Your task to perform on an android device: Empty the shopping cart on target.com. Image 0: 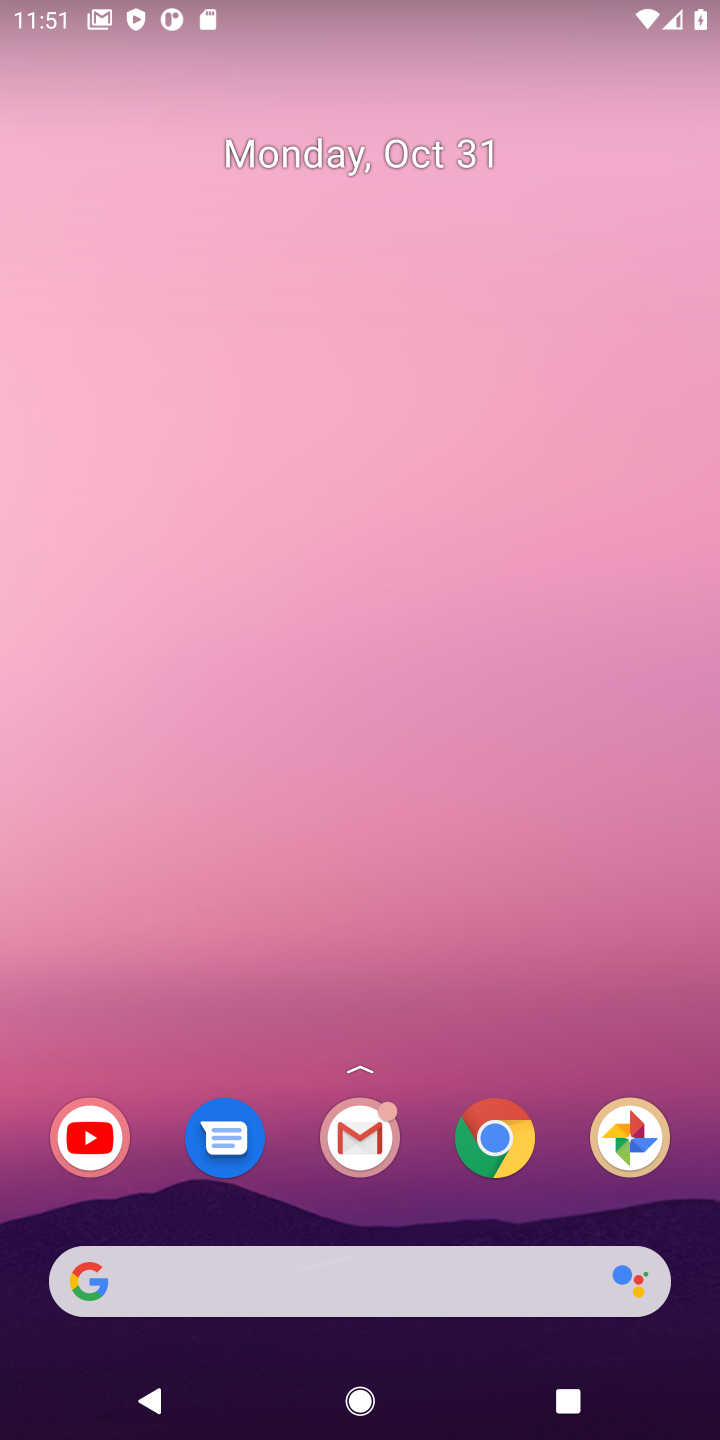
Step 0: click (510, 1150)
Your task to perform on an android device: Empty the shopping cart on target.com. Image 1: 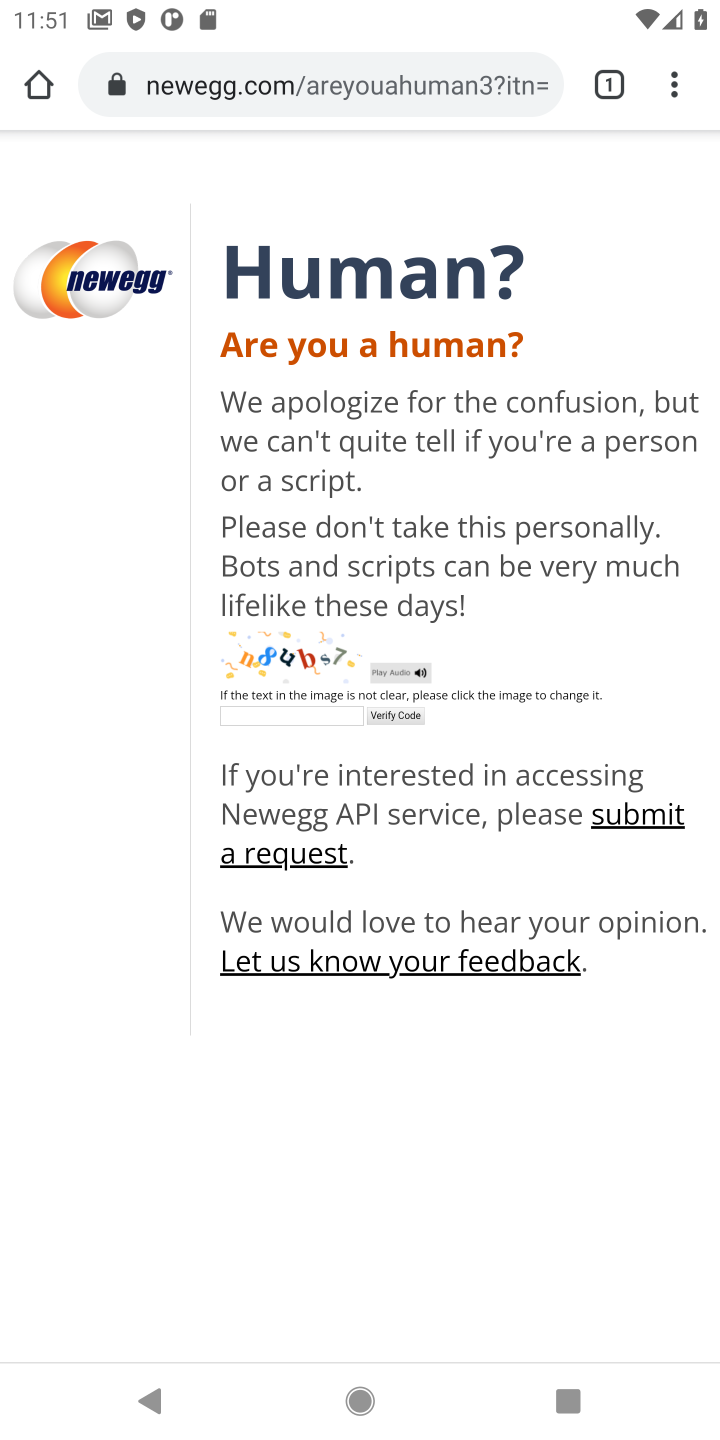
Step 1: click (248, 63)
Your task to perform on an android device: Empty the shopping cart on target.com. Image 2: 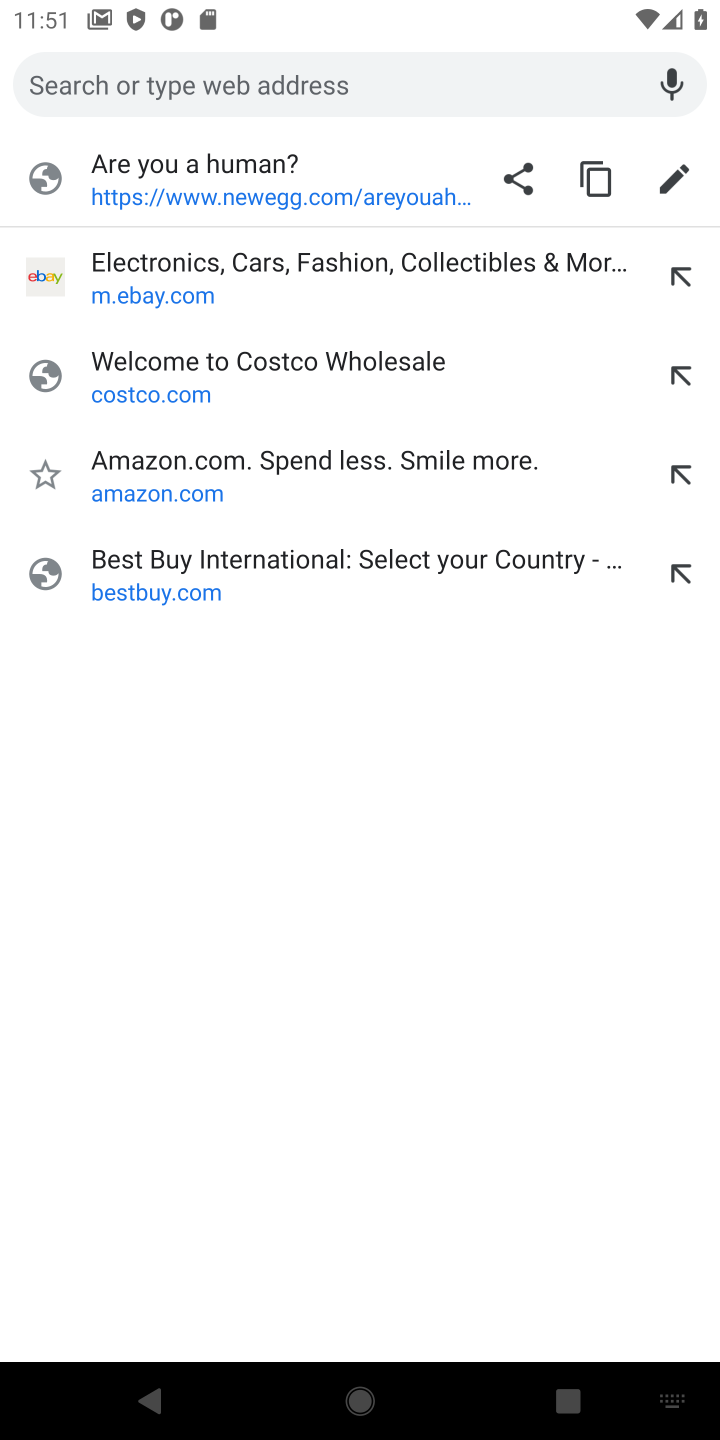
Step 2: type "target"
Your task to perform on an android device: Empty the shopping cart on target.com. Image 3: 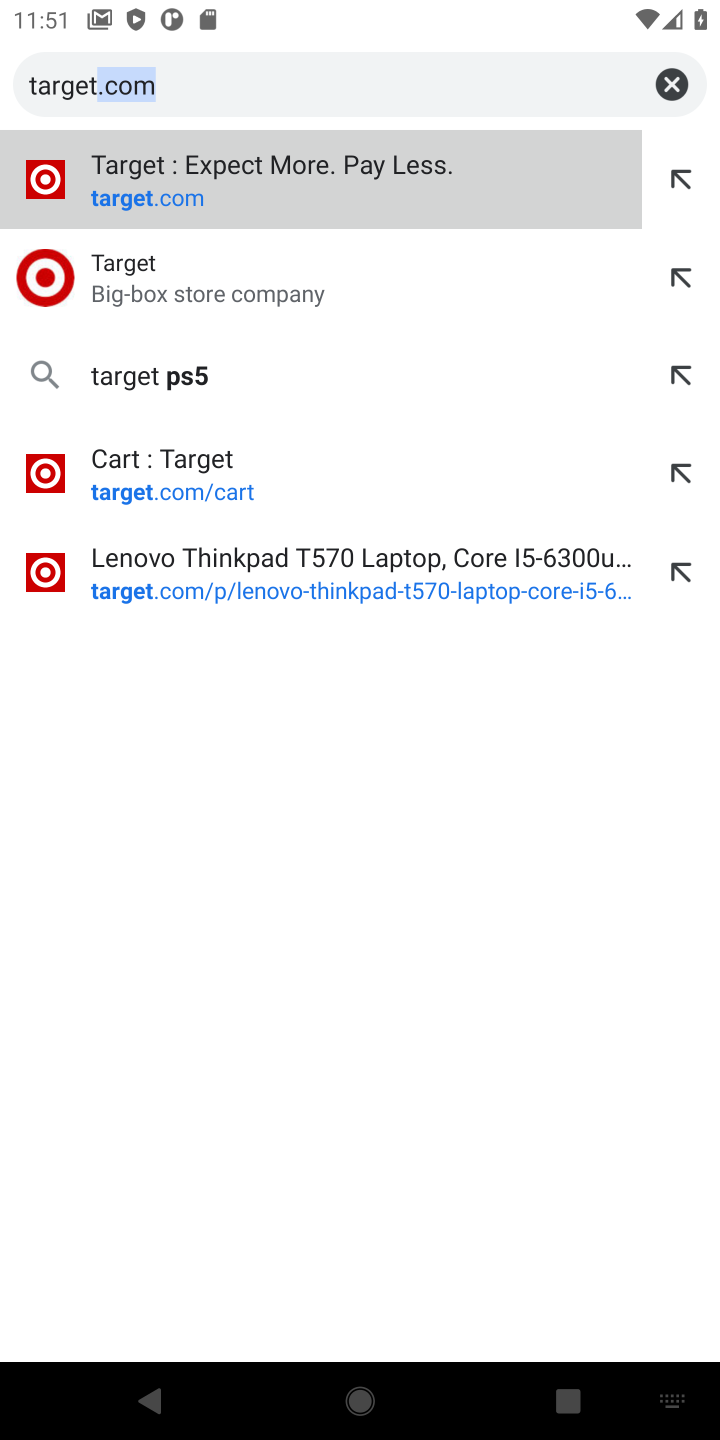
Step 3: click (159, 176)
Your task to perform on an android device: Empty the shopping cart on target.com. Image 4: 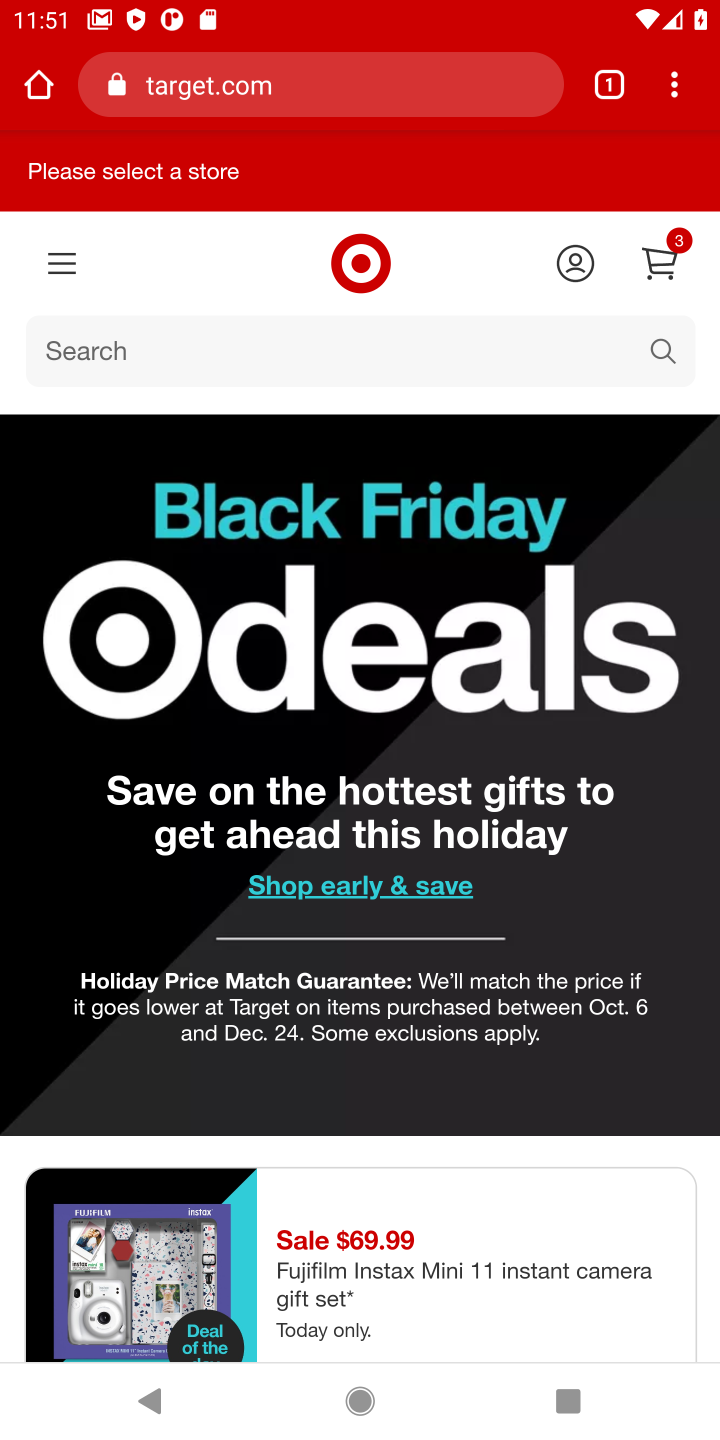
Step 4: click (682, 231)
Your task to perform on an android device: Empty the shopping cart on target.com. Image 5: 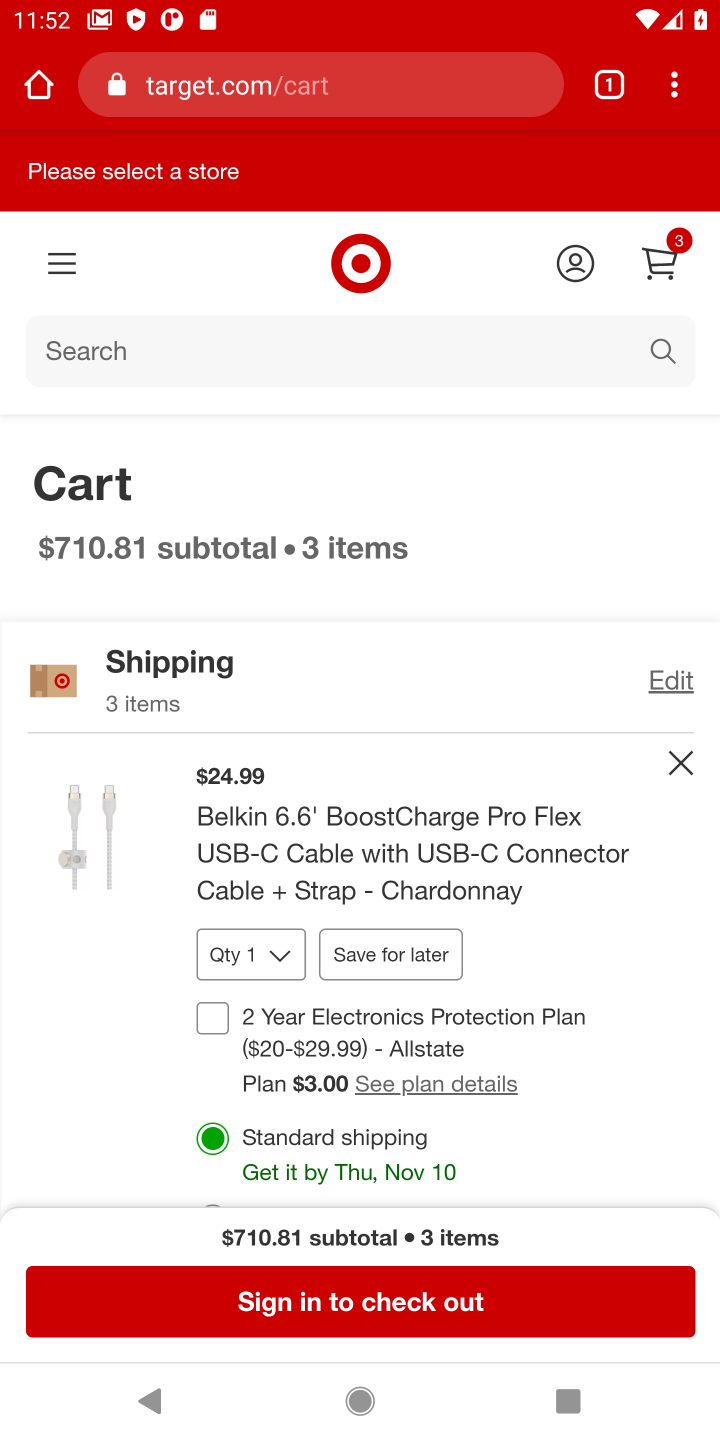
Step 5: click (688, 749)
Your task to perform on an android device: Empty the shopping cart on target.com. Image 6: 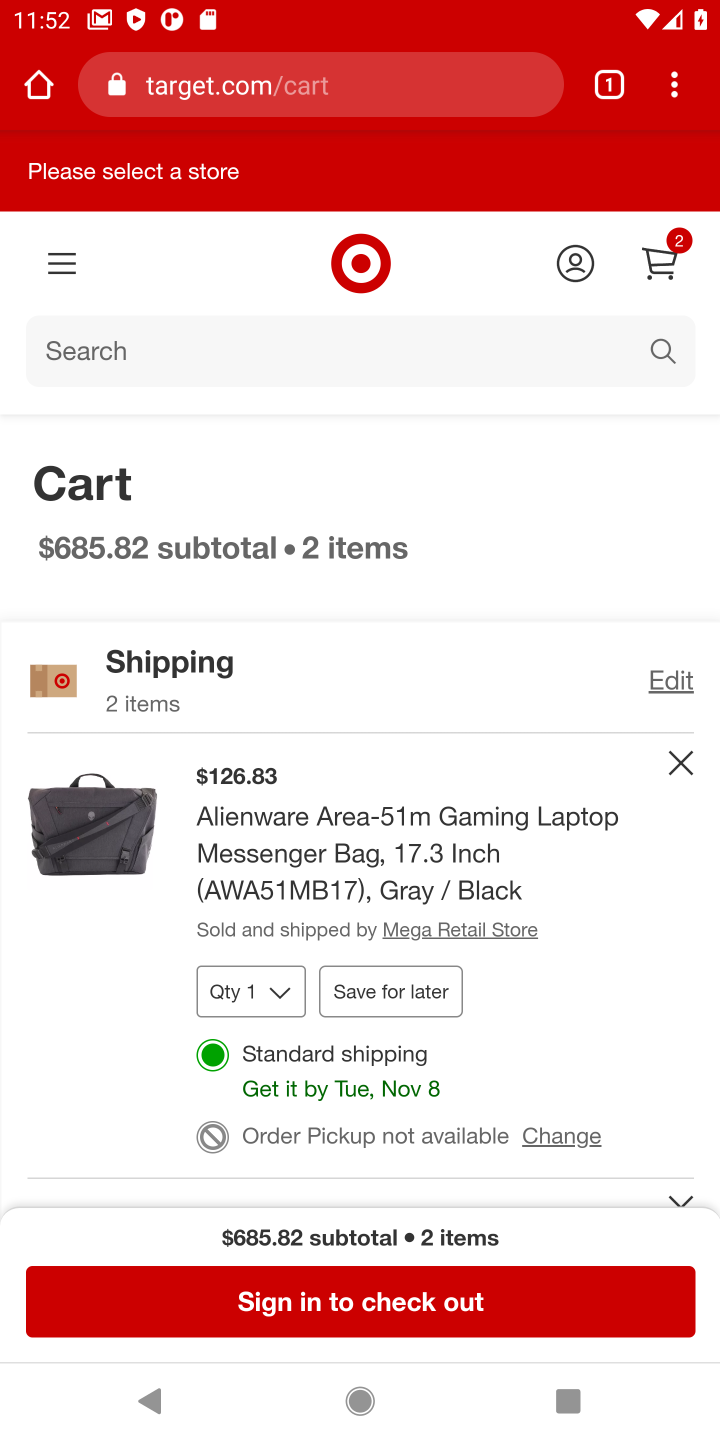
Step 6: click (688, 749)
Your task to perform on an android device: Empty the shopping cart on target.com. Image 7: 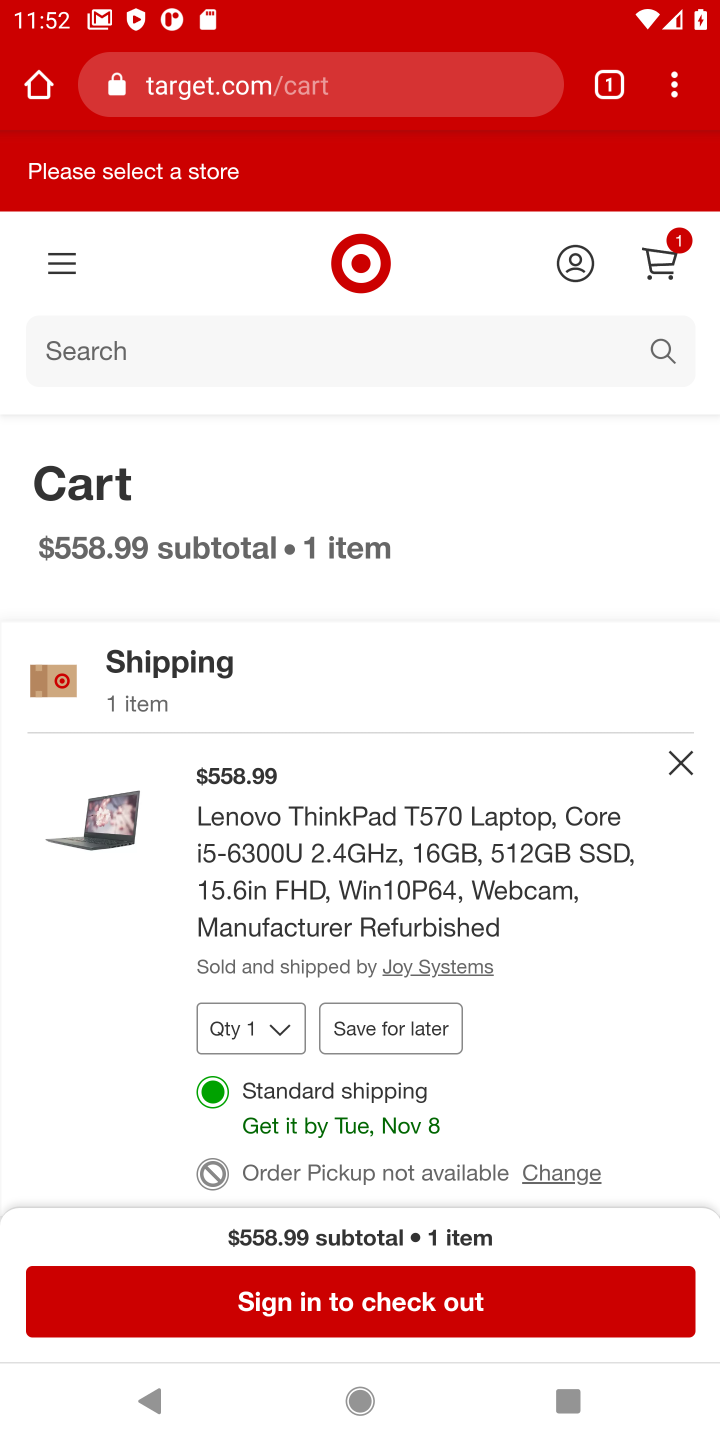
Step 7: click (688, 749)
Your task to perform on an android device: Empty the shopping cart on target.com. Image 8: 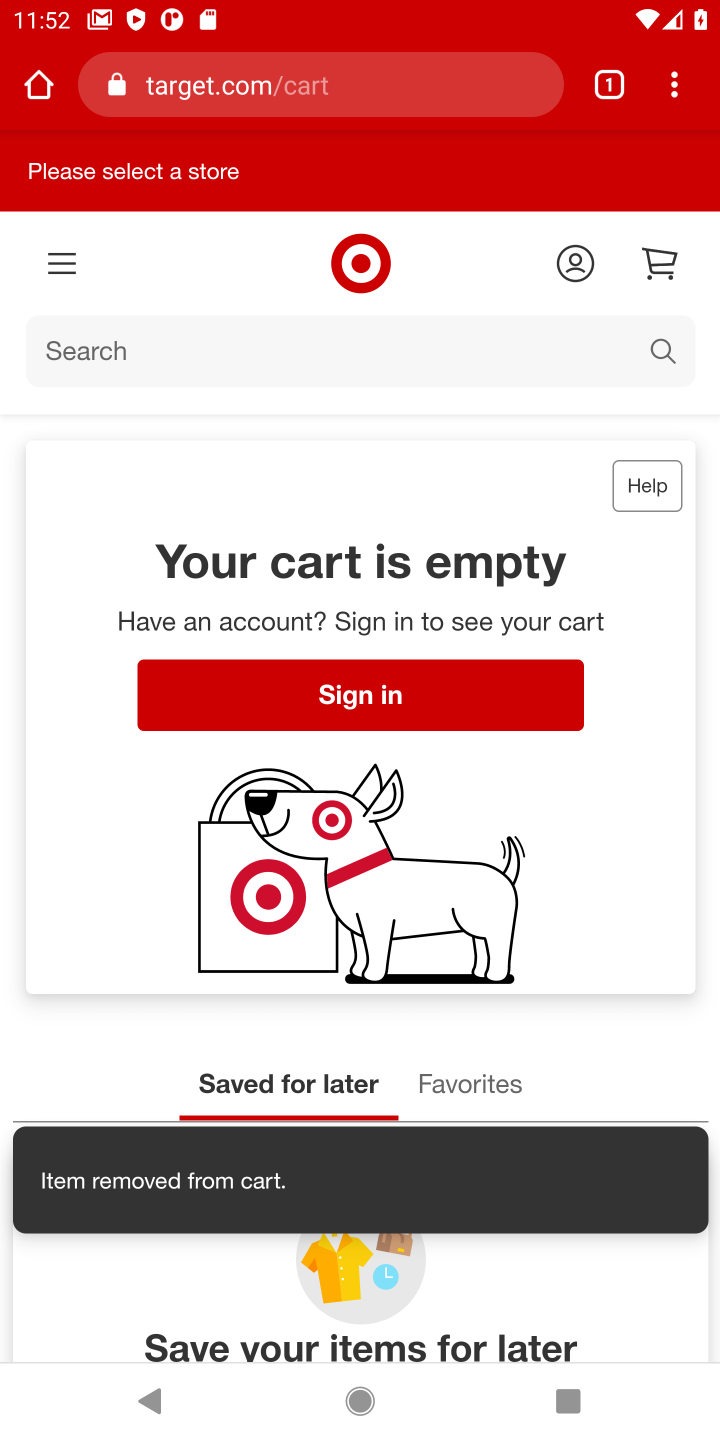
Step 8: task complete